Your task to perform on an android device: Open the map Image 0: 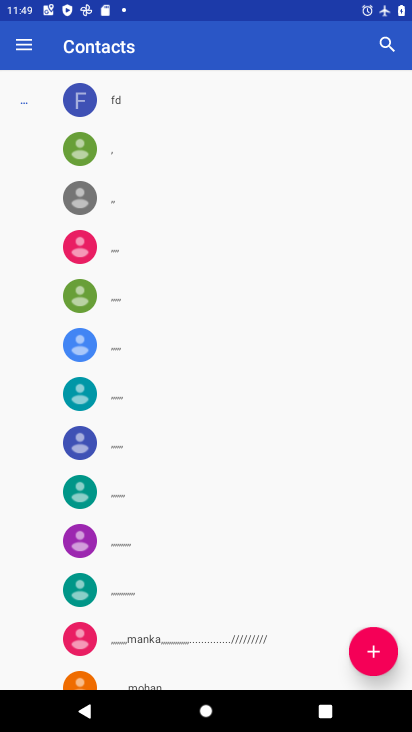
Step 0: press home button
Your task to perform on an android device: Open the map Image 1: 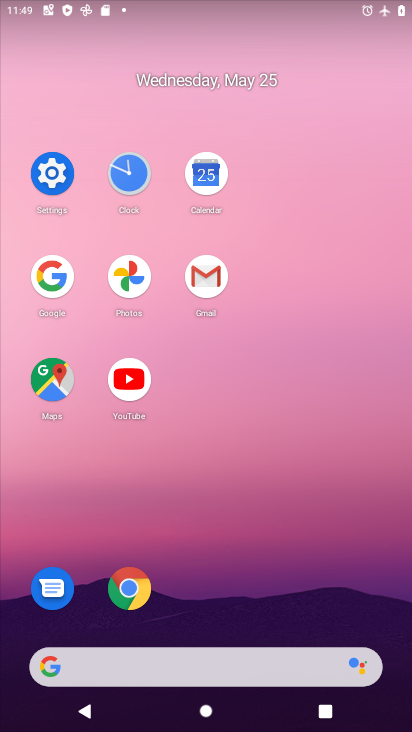
Step 1: click (61, 365)
Your task to perform on an android device: Open the map Image 2: 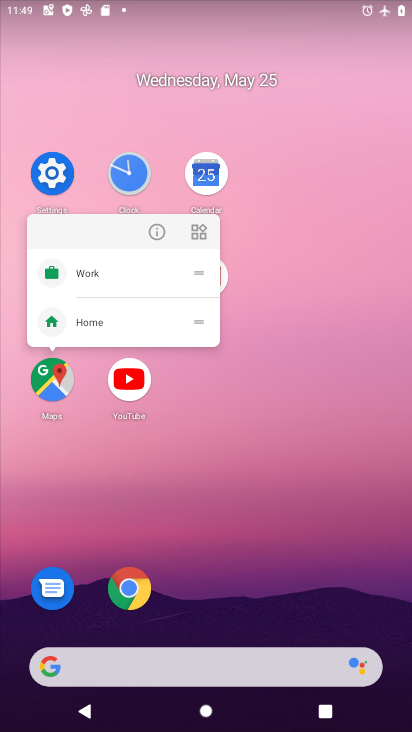
Step 2: click (37, 373)
Your task to perform on an android device: Open the map Image 3: 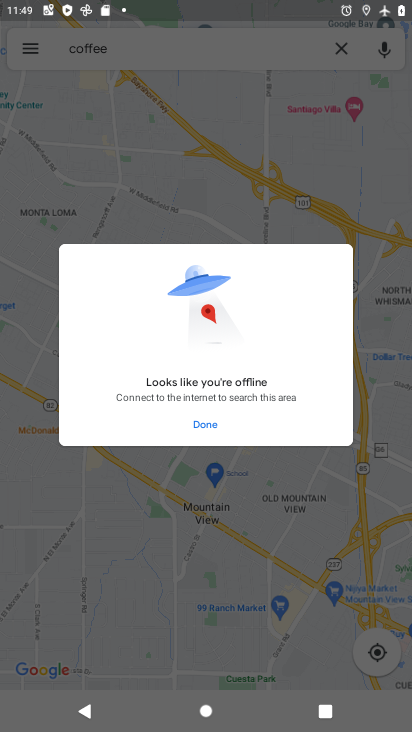
Step 3: task complete